Your task to perform on an android device: Go to Google maps Image 0: 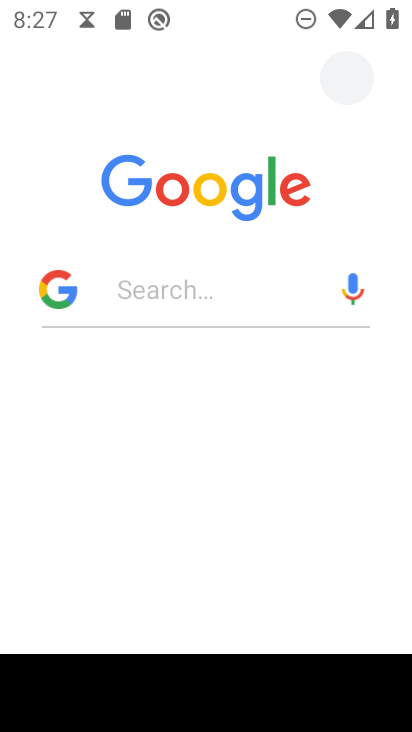
Step 0: press home button
Your task to perform on an android device: Go to Google maps Image 1: 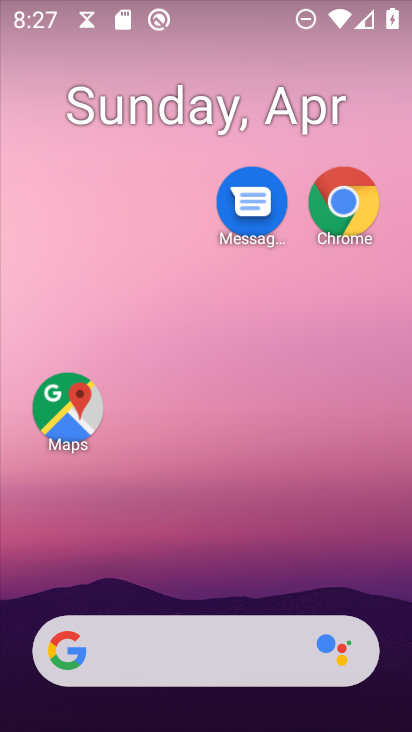
Step 1: click (60, 411)
Your task to perform on an android device: Go to Google maps Image 2: 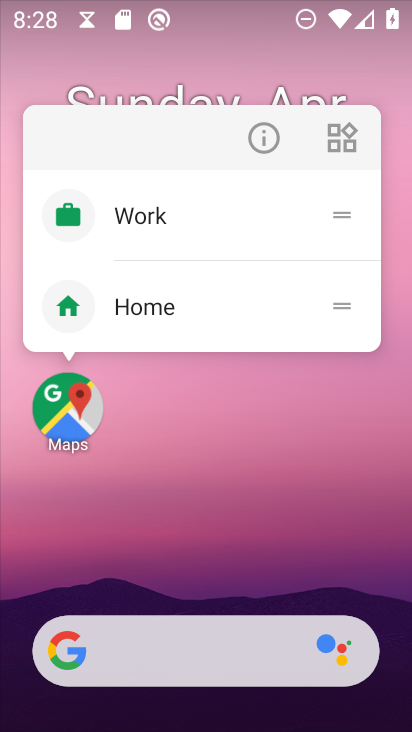
Step 2: click (69, 419)
Your task to perform on an android device: Go to Google maps Image 3: 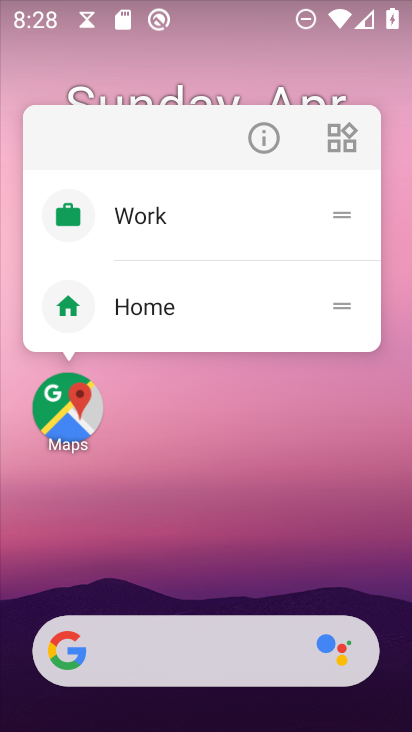
Step 3: click (61, 421)
Your task to perform on an android device: Go to Google maps Image 4: 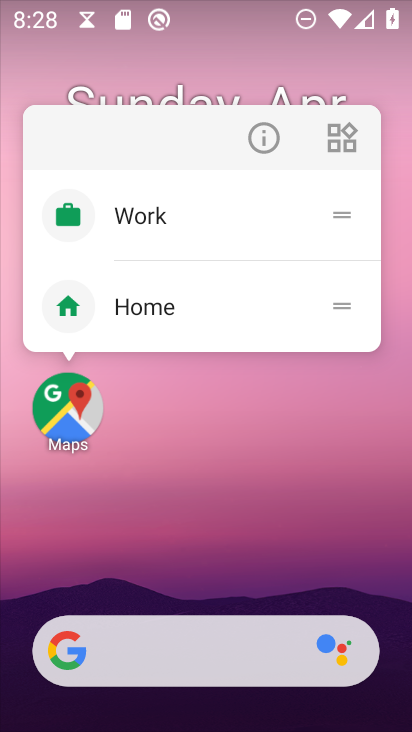
Step 4: click (71, 417)
Your task to perform on an android device: Go to Google maps Image 5: 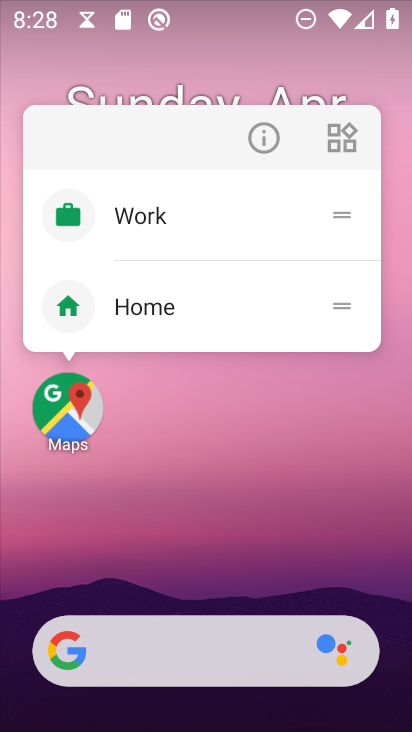
Step 5: click (71, 417)
Your task to perform on an android device: Go to Google maps Image 6: 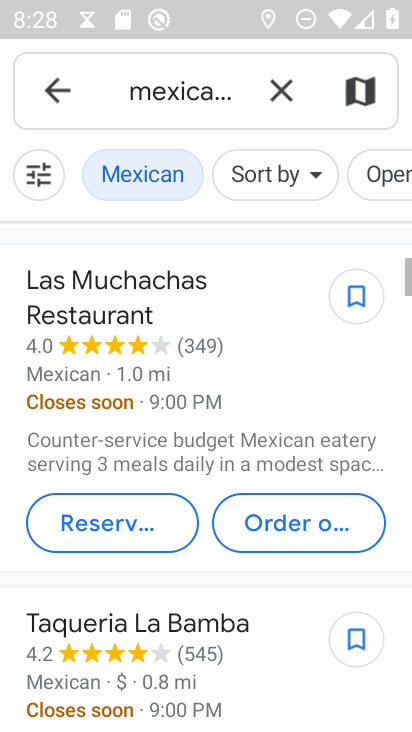
Step 6: click (60, 90)
Your task to perform on an android device: Go to Google maps Image 7: 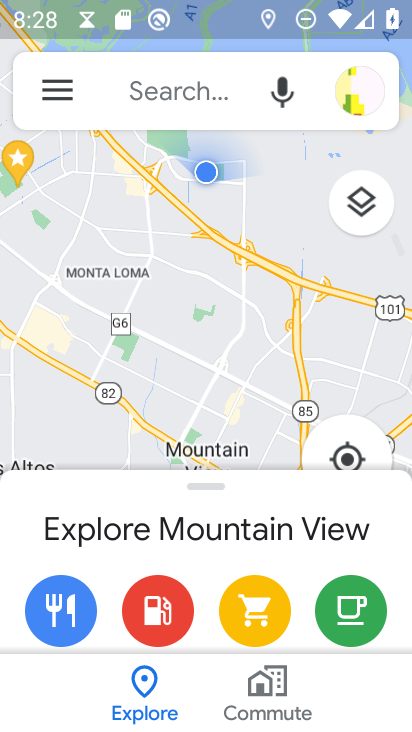
Step 7: task complete